Your task to perform on an android device: change timer sound Image 0: 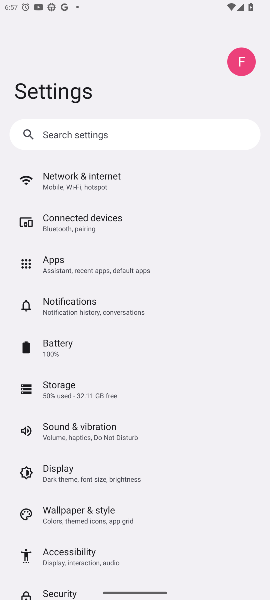
Step 0: press home button
Your task to perform on an android device: change timer sound Image 1: 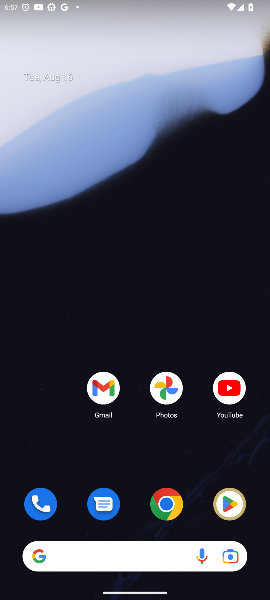
Step 1: drag from (18, 581) to (109, 239)
Your task to perform on an android device: change timer sound Image 2: 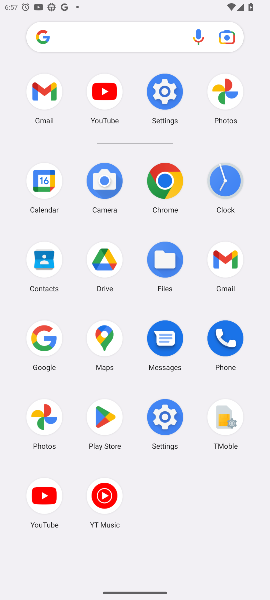
Step 2: click (221, 179)
Your task to perform on an android device: change timer sound Image 3: 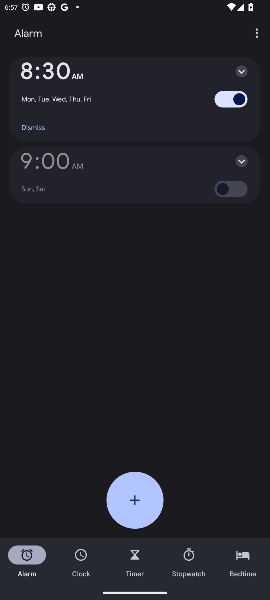
Step 3: click (258, 50)
Your task to perform on an android device: change timer sound Image 4: 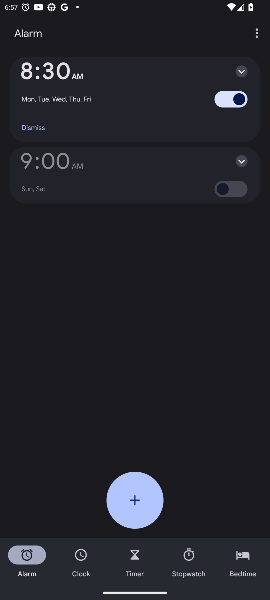
Step 4: click (260, 34)
Your task to perform on an android device: change timer sound Image 5: 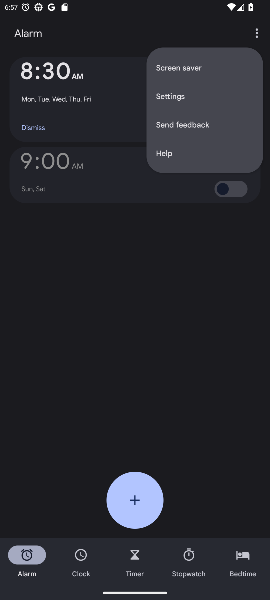
Step 5: click (168, 96)
Your task to perform on an android device: change timer sound Image 6: 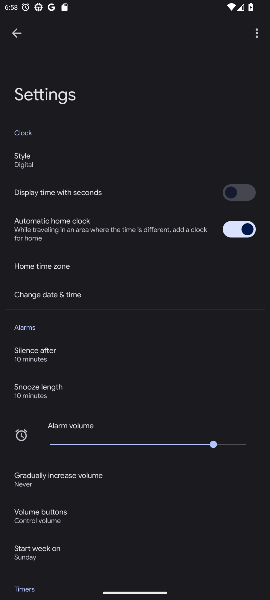
Step 6: click (46, 394)
Your task to perform on an android device: change timer sound Image 7: 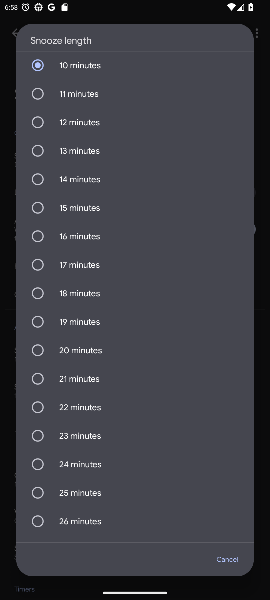
Step 7: click (216, 559)
Your task to perform on an android device: change timer sound Image 8: 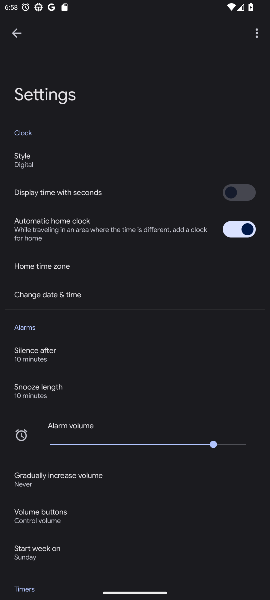
Step 8: click (40, 522)
Your task to perform on an android device: change timer sound Image 9: 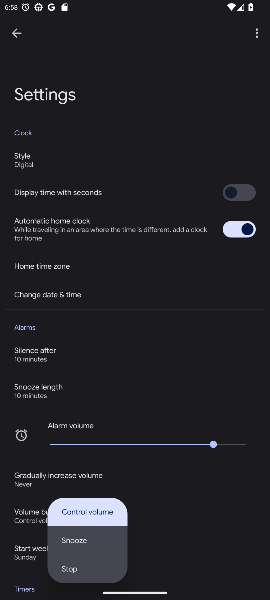
Step 9: task complete